Your task to perform on an android device: Go to privacy settings Image 0: 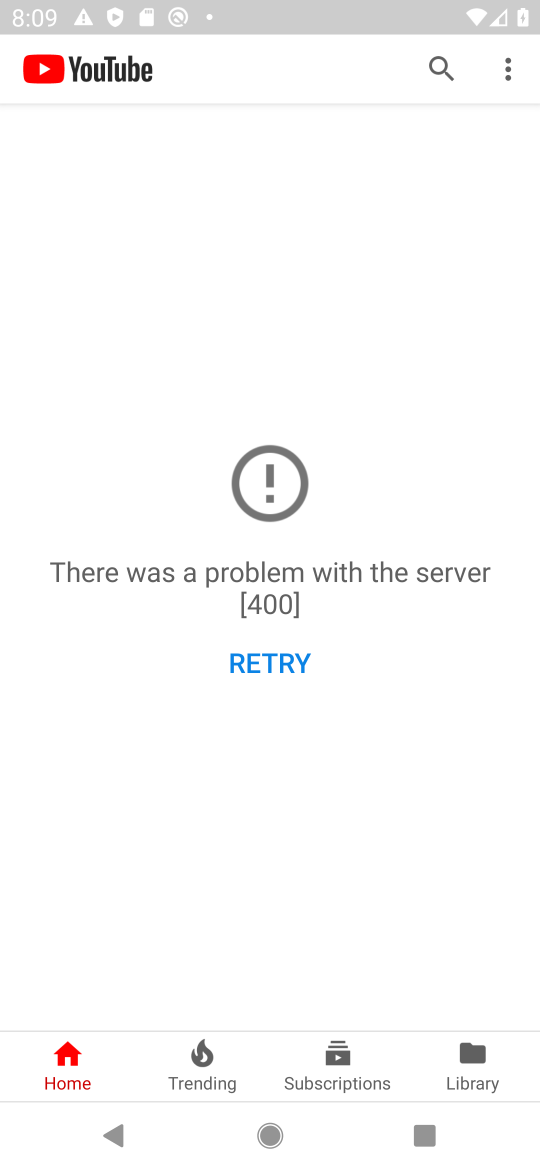
Step 0: press home button
Your task to perform on an android device: Go to privacy settings Image 1: 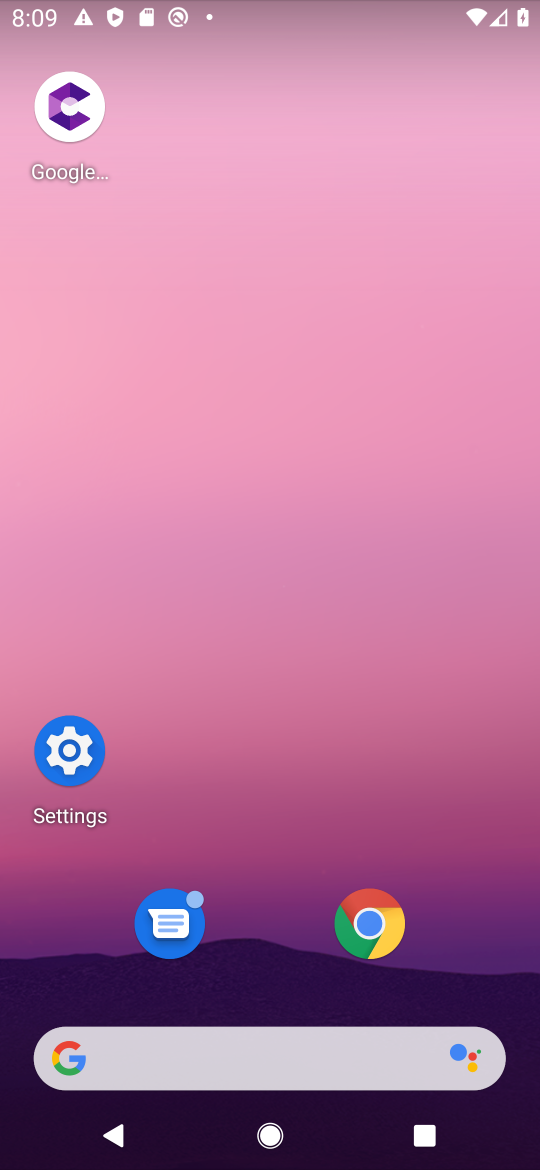
Step 1: drag from (513, 1030) to (438, 189)
Your task to perform on an android device: Go to privacy settings Image 2: 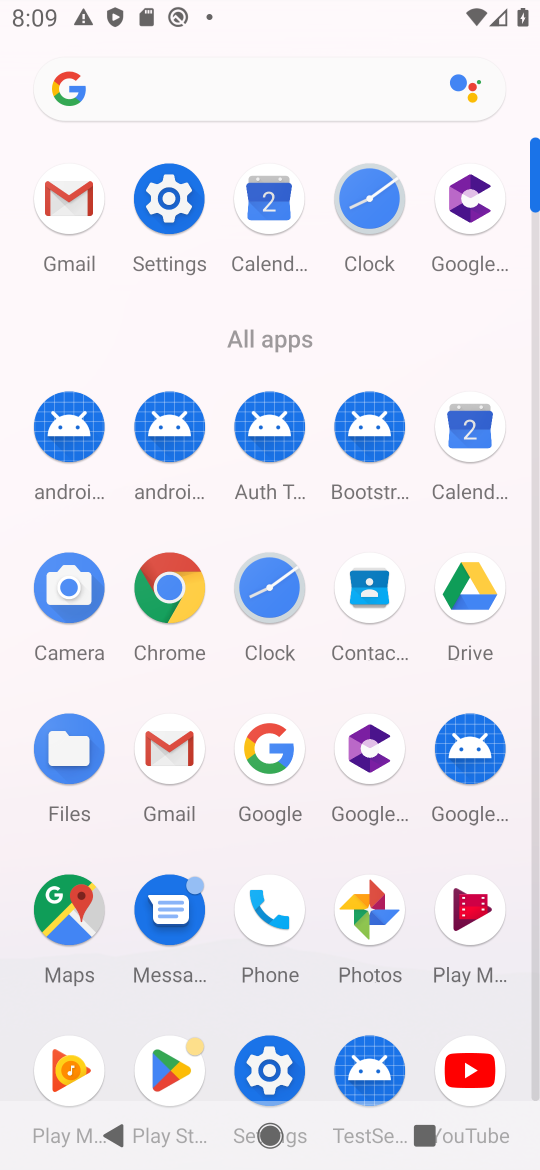
Step 2: click (267, 1066)
Your task to perform on an android device: Go to privacy settings Image 3: 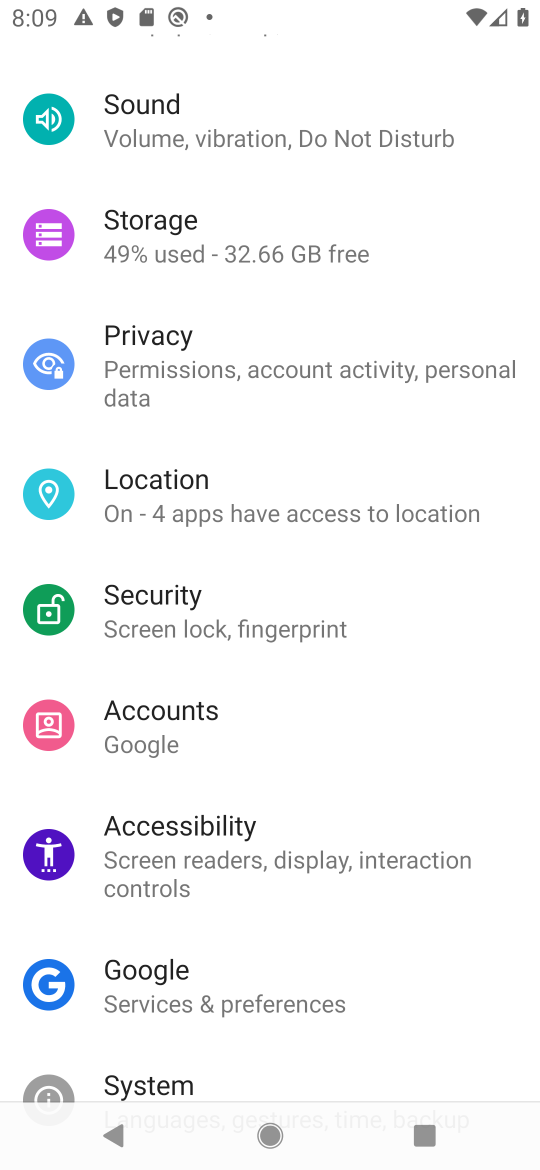
Step 3: click (189, 345)
Your task to perform on an android device: Go to privacy settings Image 4: 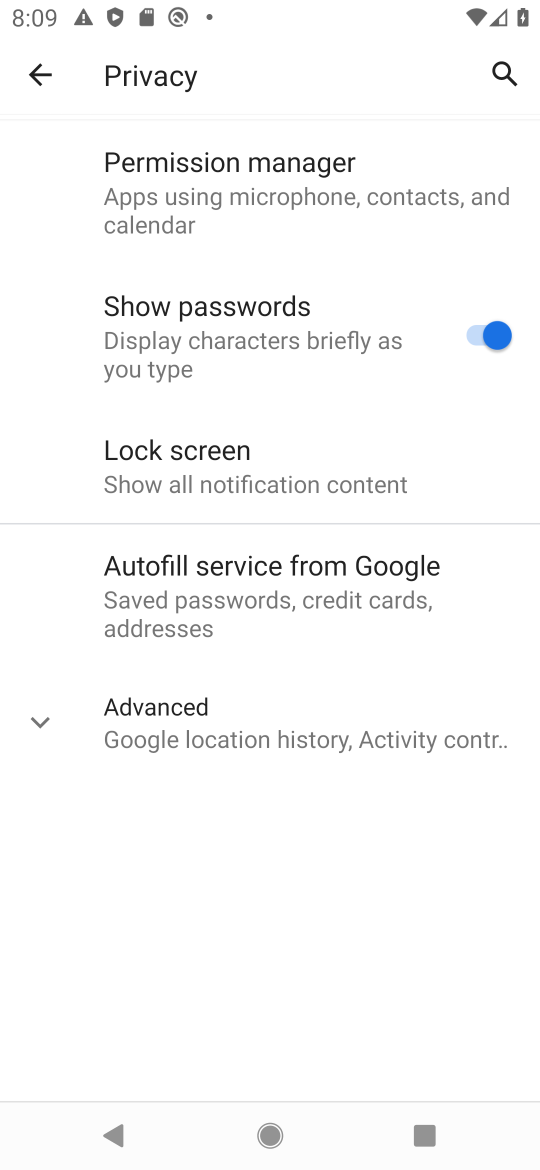
Step 4: click (41, 710)
Your task to perform on an android device: Go to privacy settings Image 5: 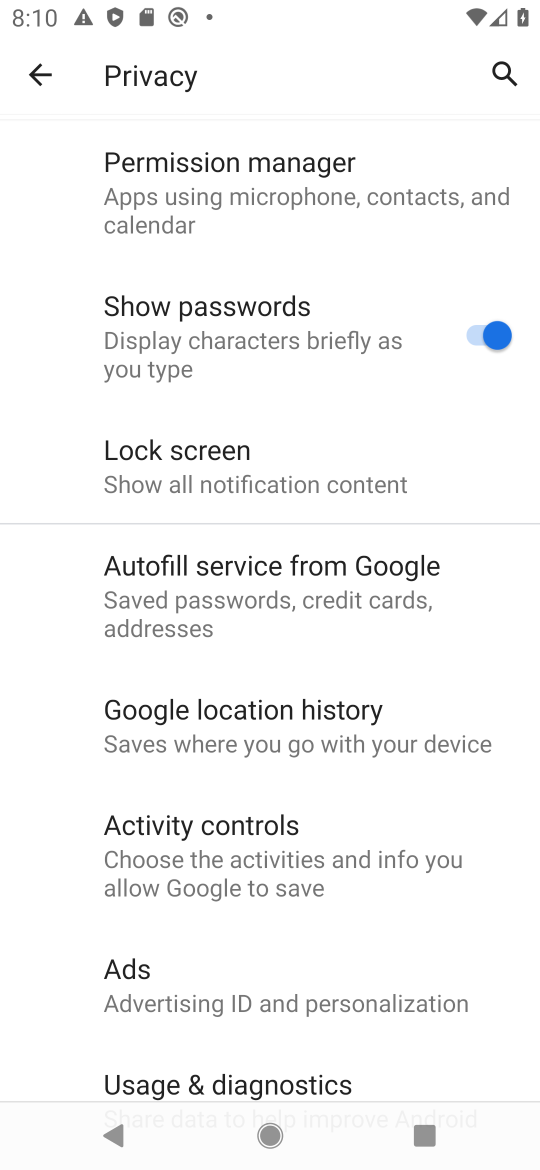
Step 5: task complete